Your task to perform on an android device: Open the Play Movies app and select the watchlist tab. Image 0: 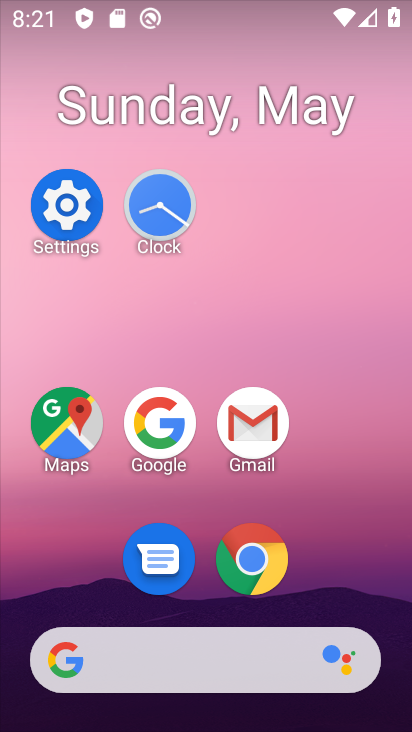
Step 0: drag from (372, 587) to (317, 160)
Your task to perform on an android device: Open the Play Movies app and select the watchlist tab. Image 1: 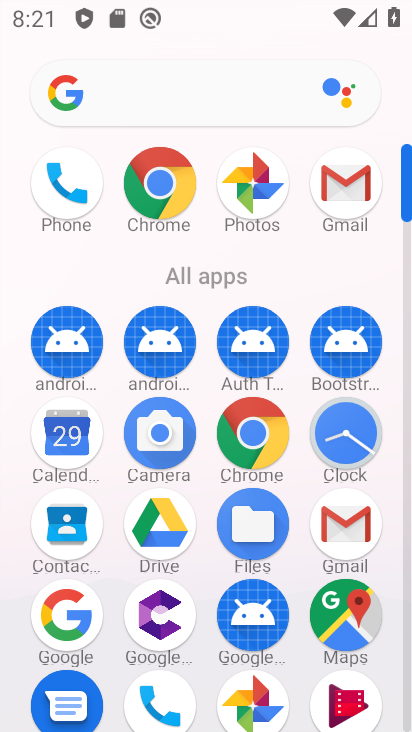
Step 1: drag from (304, 619) to (295, 244)
Your task to perform on an android device: Open the Play Movies app and select the watchlist tab. Image 2: 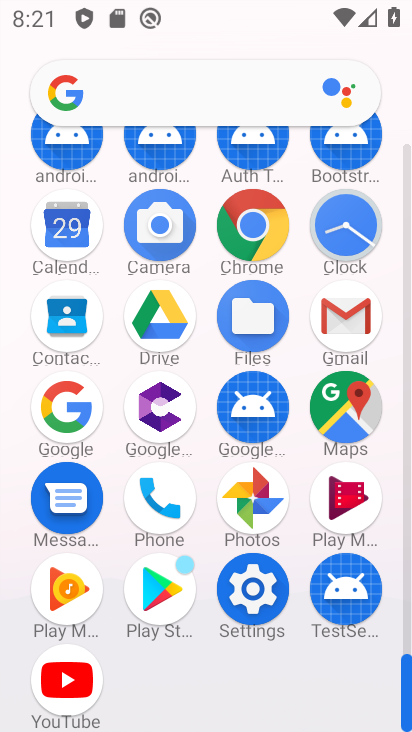
Step 2: click (354, 491)
Your task to perform on an android device: Open the Play Movies app and select the watchlist tab. Image 3: 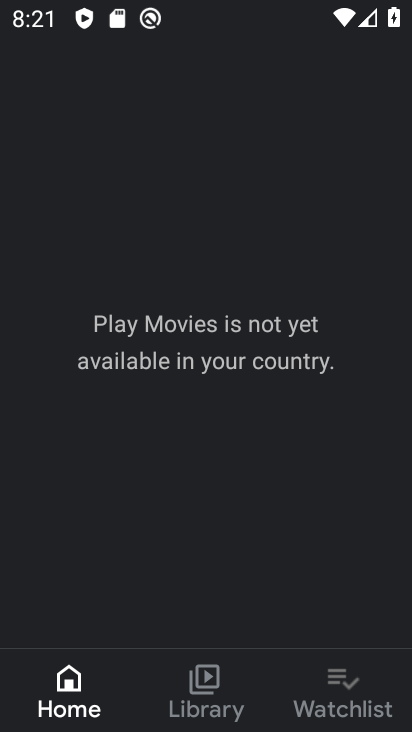
Step 3: click (331, 690)
Your task to perform on an android device: Open the Play Movies app and select the watchlist tab. Image 4: 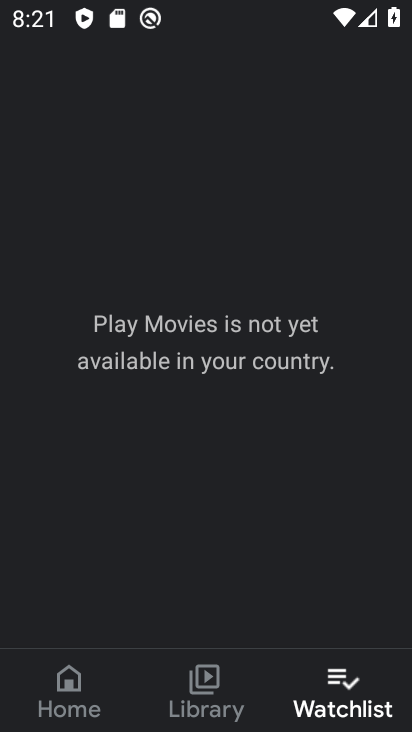
Step 4: task complete